Your task to perform on an android device: change the upload size in google photos Image 0: 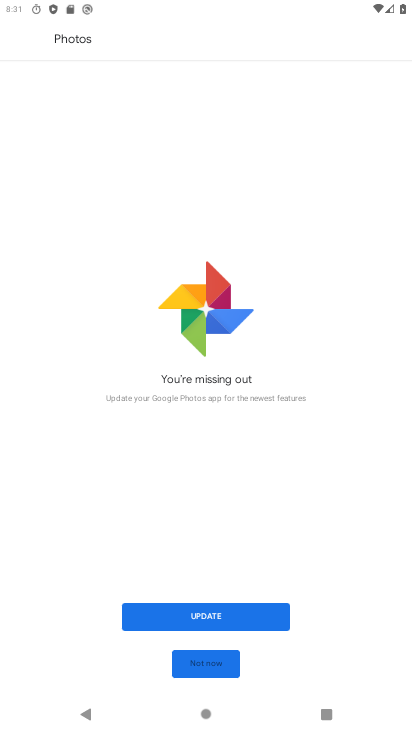
Step 0: press home button
Your task to perform on an android device: change the upload size in google photos Image 1: 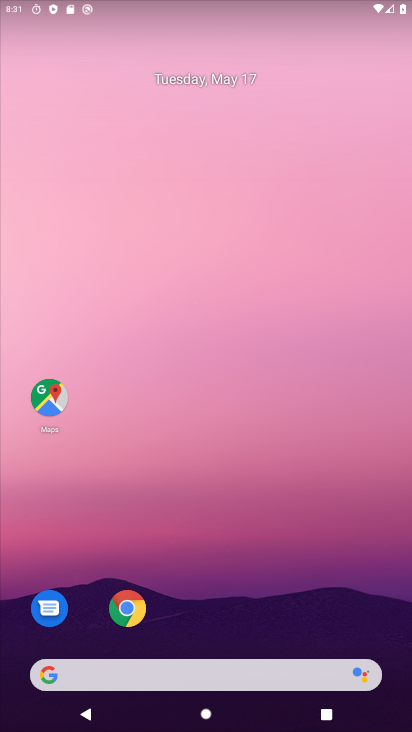
Step 1: drag from (372, 641) to (300, 194)
Your task to perform on an android device: change the upload size in google photos Image 2: 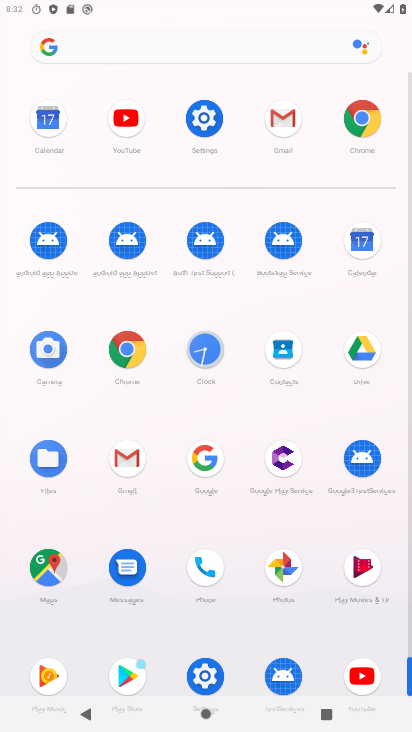
Step 2: click (272, 561)
Your task to perform on an android device: change the upload size in google photos Image 3: 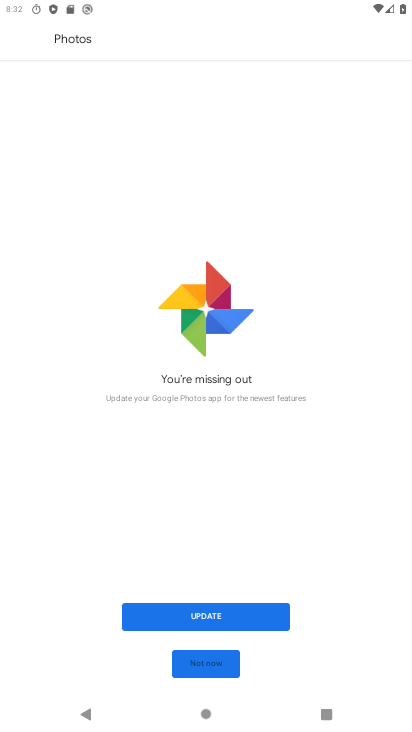
Step 3: click (241, 615)
Your task to perform on an android device: change the upload size in google photos Image 4: 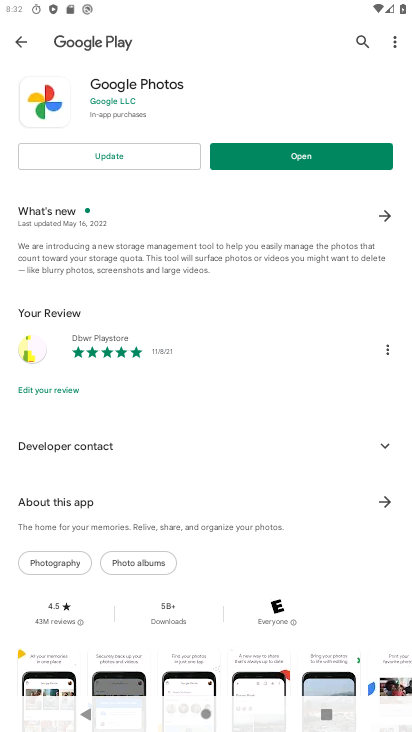
Step 4: click (16, 44)
Your task to perform on an android device: change the upload size in google photos Image 5: 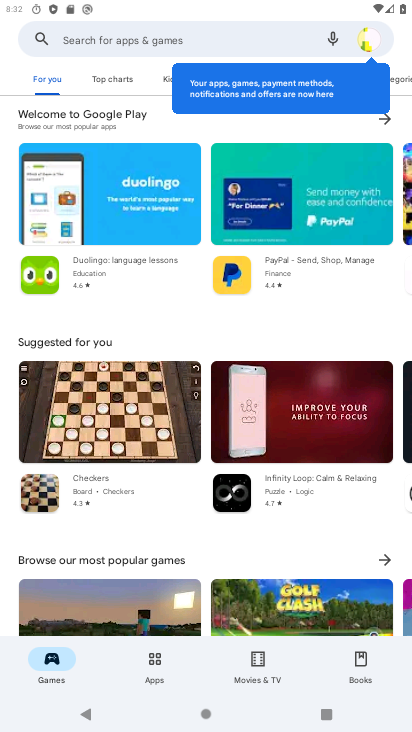
Step 5: press home button
Your task to perform on an android device: change the upload size in google photos Image 6: 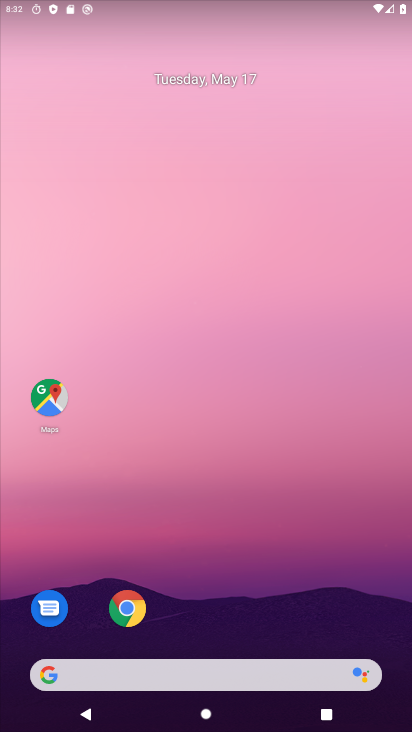
Step 6: drag from (373, 617) to (331, 115)
Your task to perform on an android device: change the upload size in google photos Image 7: 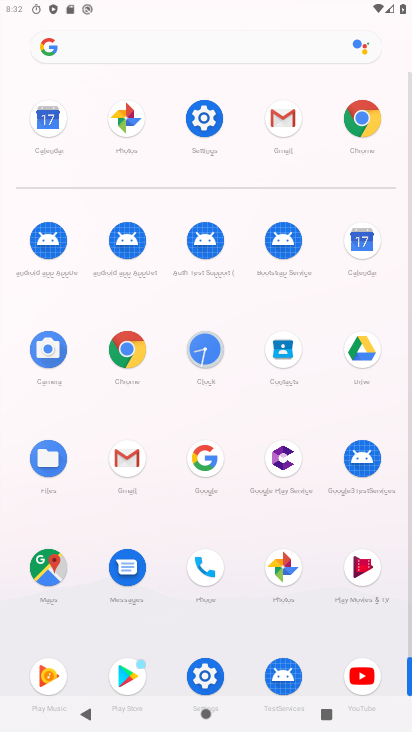
Step 7: click (286, 567)
Your task to perform on an android device: change the upload size in google photos Image 8: 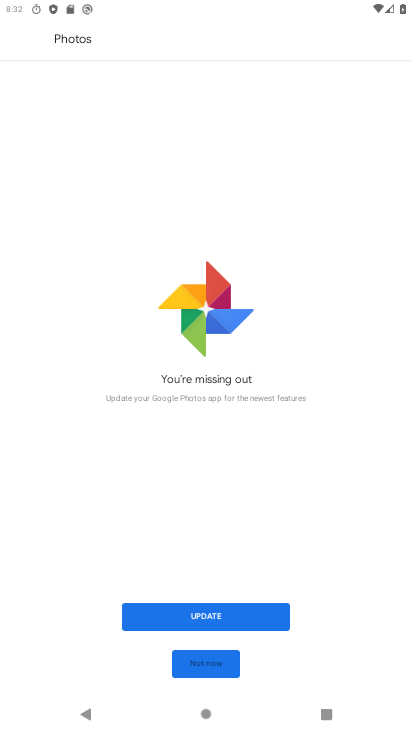
Step 8: click (265, 621)
Your task to perform on an android device: change the upload size in google photos Image 9: 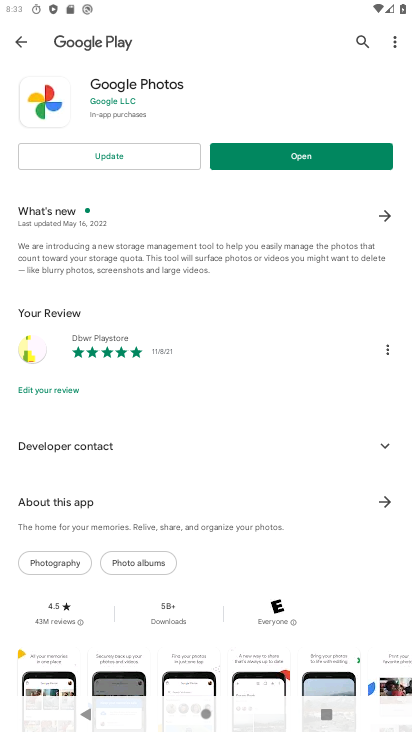
Step 9: click (90, 146)
Your task to perform on an android device: change the upload size in google photos Image 10: 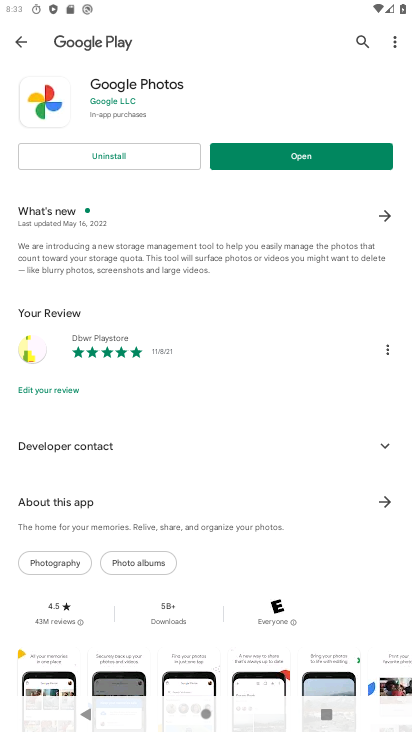
Step 10: click (292, 163)
Your task to perform on an android device: change the upload size in google photos Image 11: 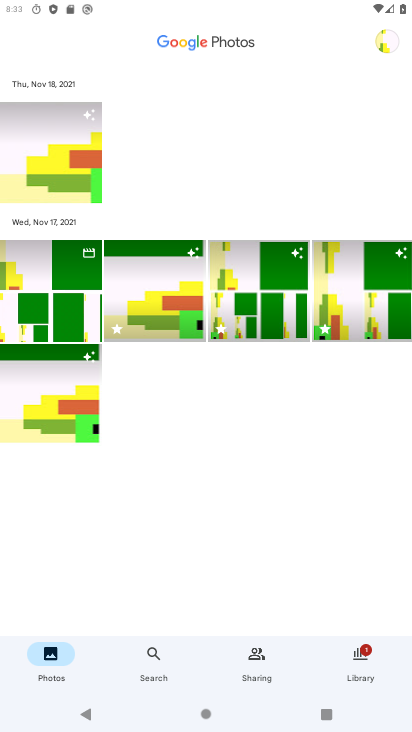
Step 11: click (387, 39)
Your task to perform on an android device: change the upload size in google photos Image 12: 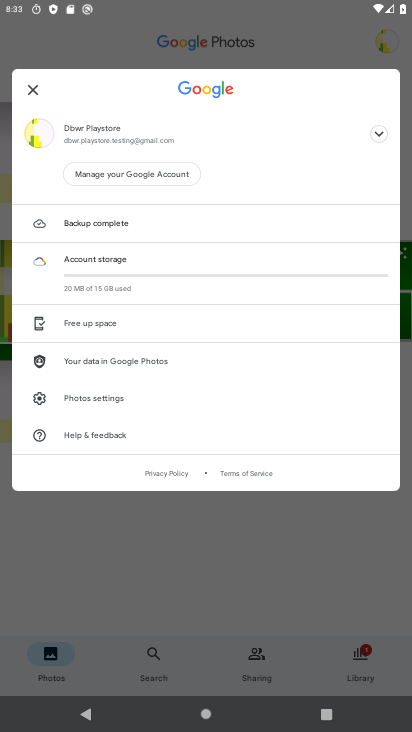
Step 12: click (103, 390)
Your task to perform on an android device: change the upload size in google photos Image 13: 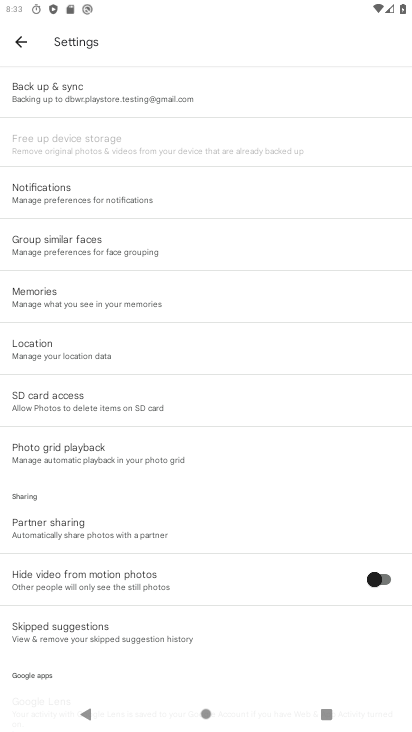
Step 13: click (124, 90)
Your task to perform on an android device: change the upload size in google photos Image 14: 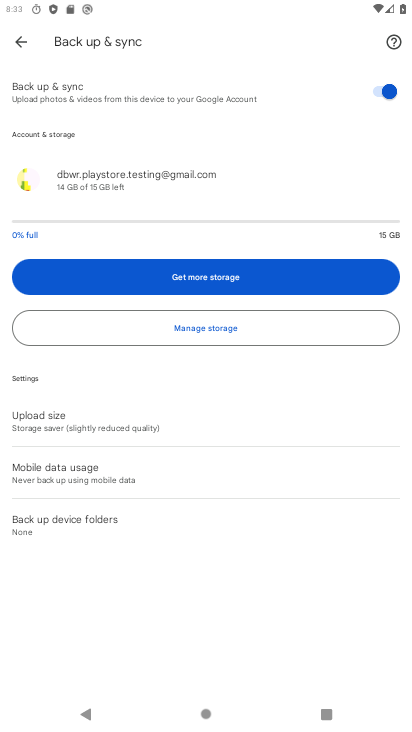
Step 14: click (151, 432)
Your task to perform on an android device: change the upload size in google photos Image 15: 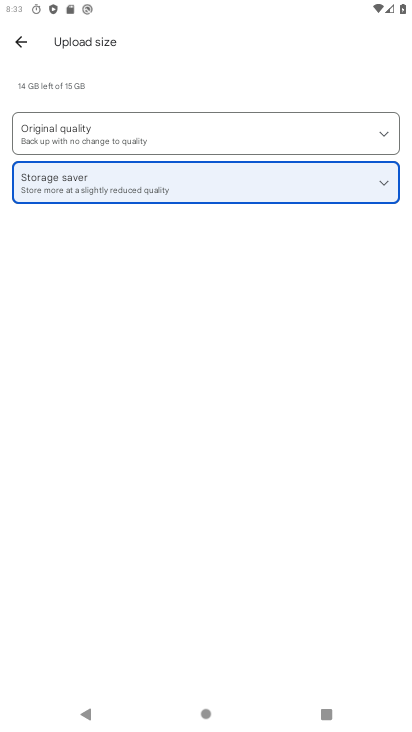
Step 15: click (194, 143)
Your task to perform on an android device: change the upload size in google photos Image 16: 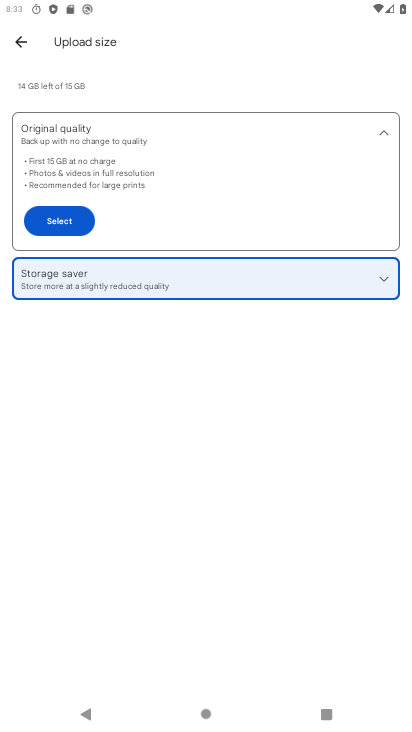
Step 16: click (77, 219)
Your task to perform on an android device: change the upload size in google photos Image 17: 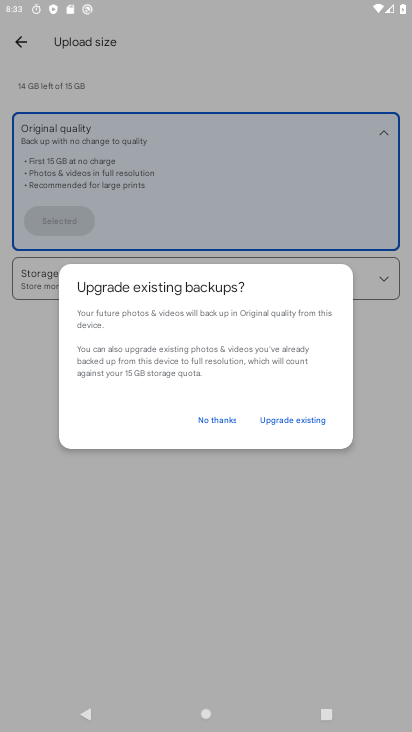
Step 17: click (277, 419)
Your task to perform on an android device: change the upload size in google photos Image 18: 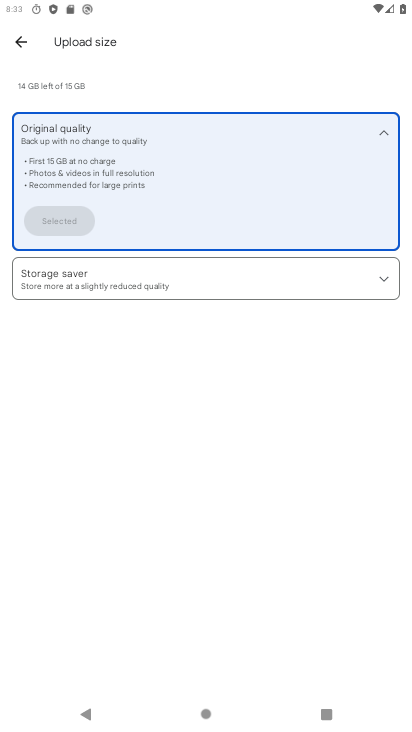
Step 18: task complete